Your task to perform on an android device: remove spam from my inbox in the gmail app Image 0: 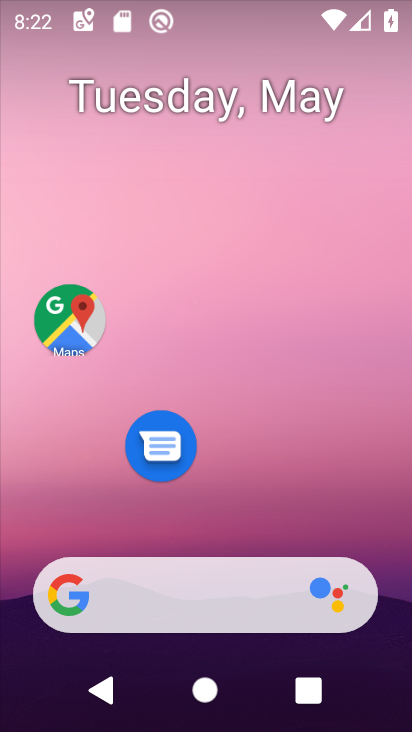
Step 0: drag from (174, 529) to (197, 15)
Your task to perform on an android device: remove spam from my inbox in the gmail app Image 1: 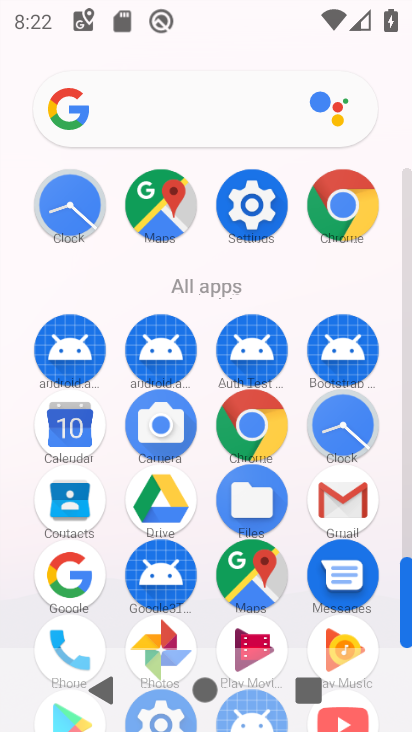
Step 1: click (335, 498)
Your task to perform on an android device: remove spam from my inbox in the gmail app Image 2: 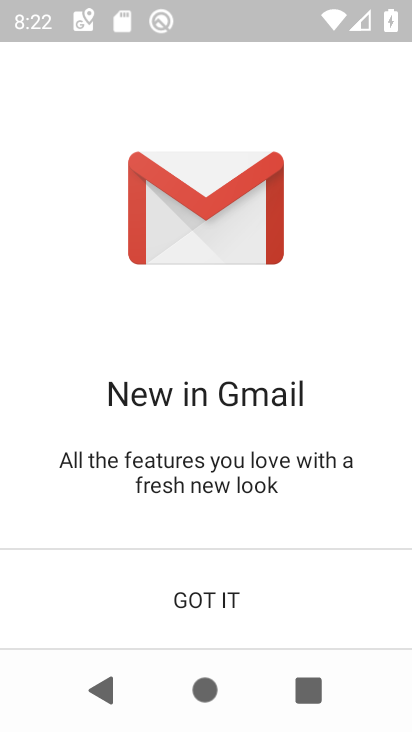
Step 2: click (243, 600)
Your task to perform on an android device: remove spam from my inbox in the gmail app Image 3: 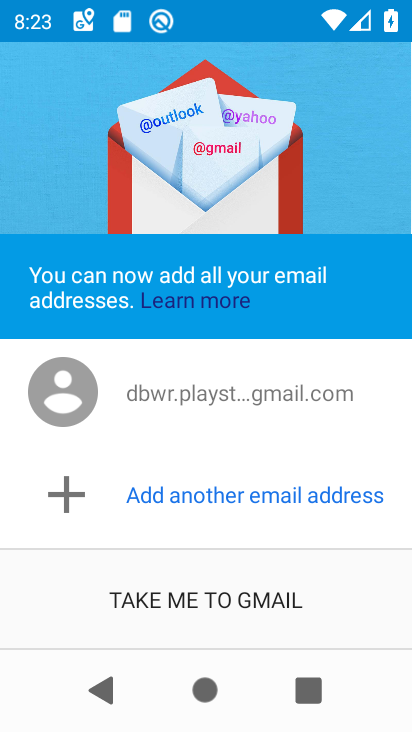
Step 3: click (160, 578)
Your task to perform on an android device: remove spam from my inbox in the gmail app Image 4: 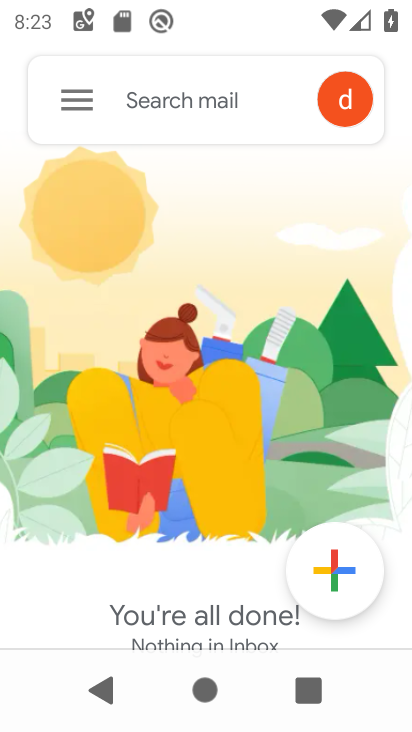
Step 4: click (76, 99)
Your task to perform on an android device: remove spam from my inbox in the gmail app Image 5: 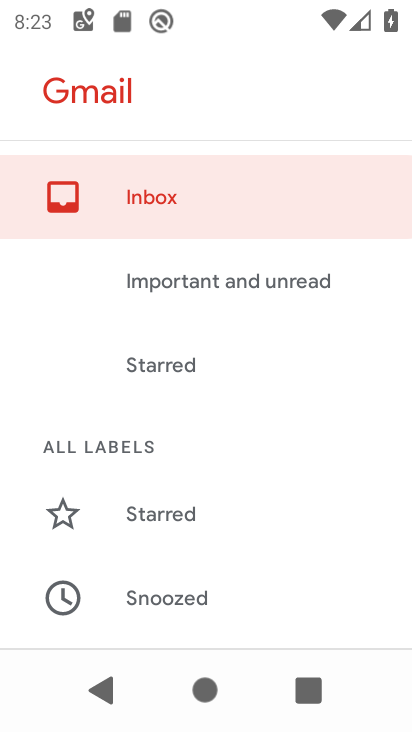
Step 5: drag from (125, 409) to (80, 12)
Your task to perform on an android device: remove spam from my inbox in the gmail app Image 6: 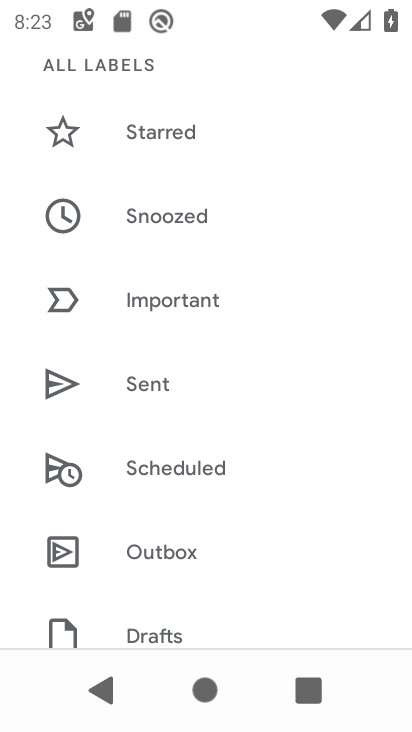
Step 6: drag from (111, 508) to (104, 29)
Your task to perform on an android device: remove spam from my inbox in the gmail app Image 7: 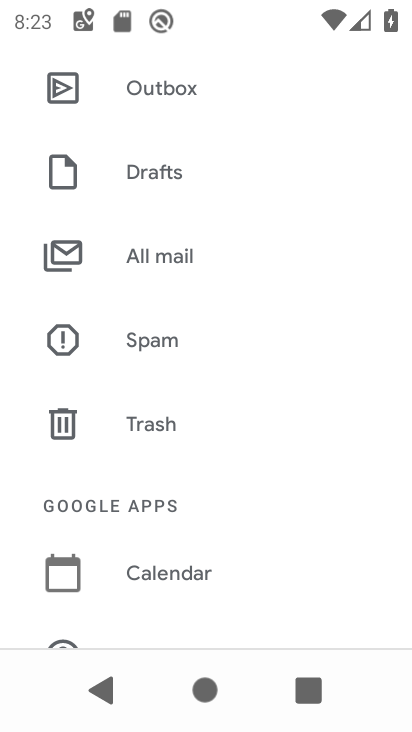
Step 7: drag from (176, 556) to (166, 47)
Your task to perform on an android device: remove spam from my inbox in the gmail app Image 8: 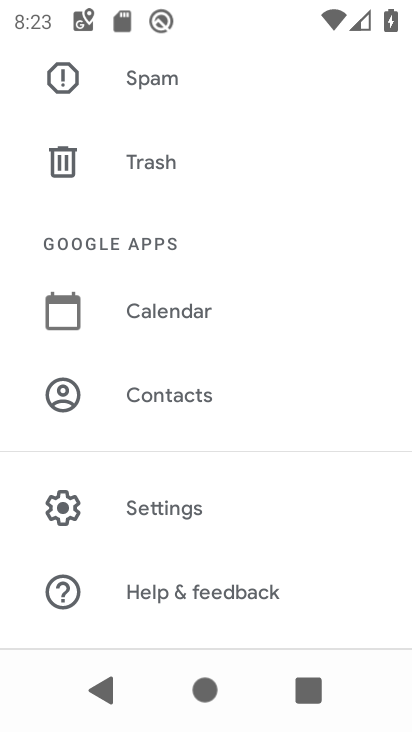
Step 8: drag from (193, 106) to (216, 297)
Your task to perform on an android device: remove spam from my inbox in the gmail app Image 9: 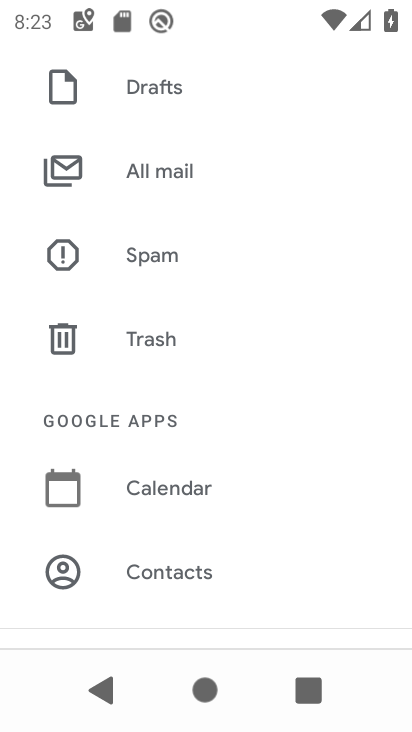
Step 9: click (160, 263)
Your task to perform on an android device: remove spam from my inbox in the gmail app Image 10: 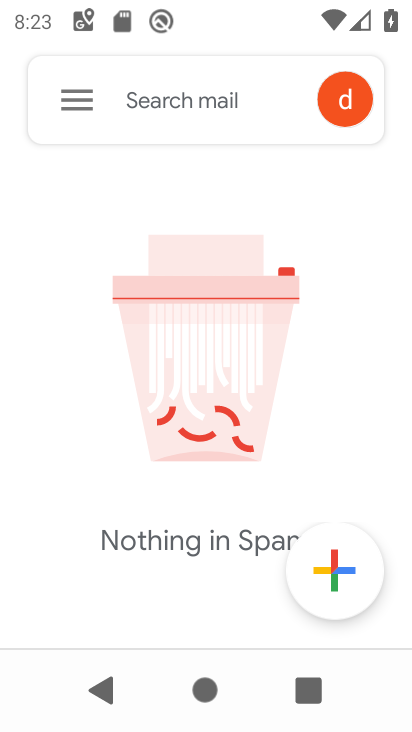
Step 10: task complete